Your task to perform on an android device: turn on the 12-hour format for clock Image 0: 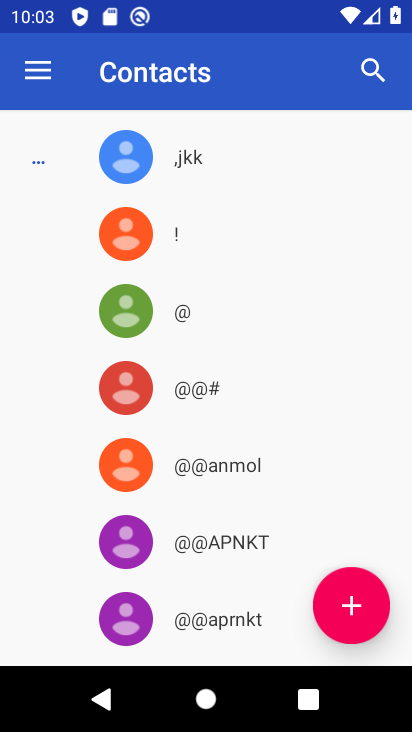
Step 0: press home button
Your task to perform on an android device: turn on the 12-hour format for clock Image 1: 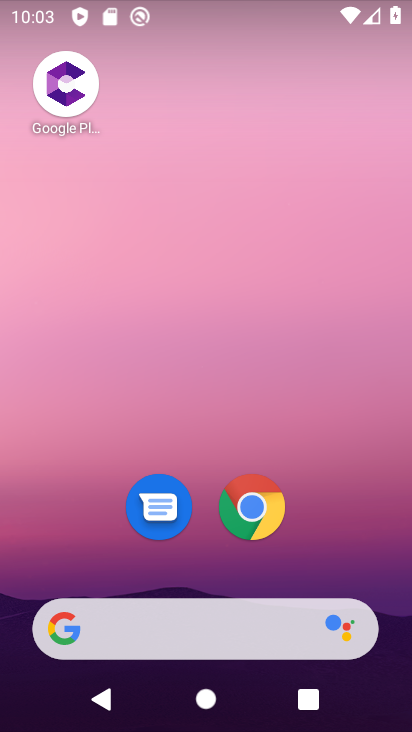
Step 1: drag from (337, 565) to (346, 14)
Your task to perform on an android device: turn on the 12-hour format for clock Image 2: 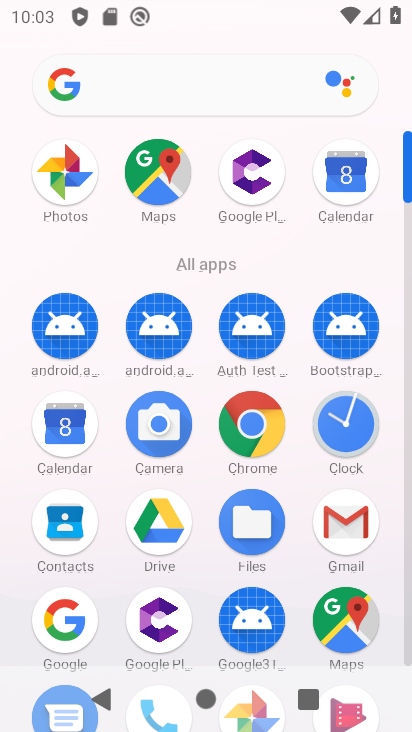
Step 2: click (346, 411)
Your task to perform on an android device: turn on the 12-hour format for clock Image 3: 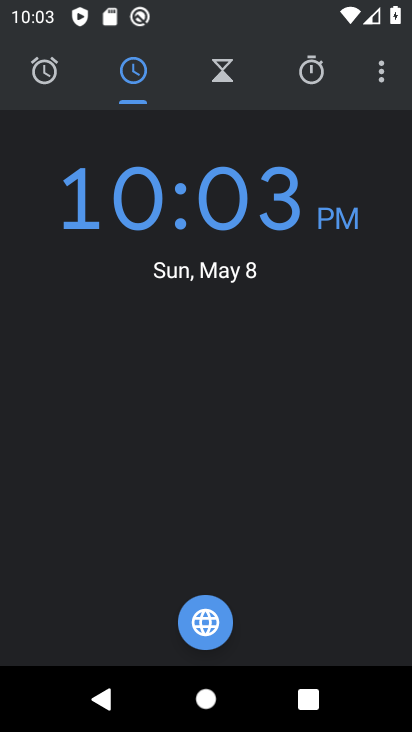
Step 3: click (371, 77)
Your task to perform on an android device: turn on the 12-hour format for clock Image 4: 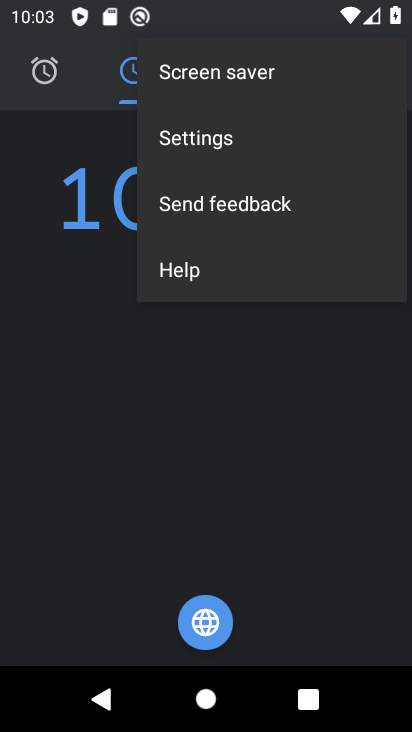
Step 4: click (299, 137)
Your task to perform on an android device: turn on the 12-hour format for clock Image 5: 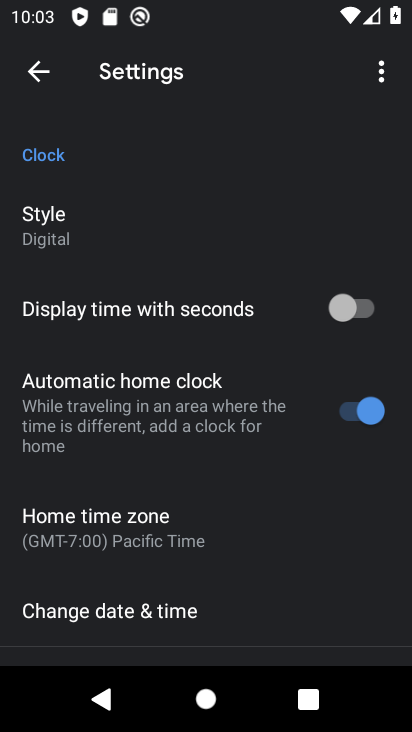
Step 5: drag from (176, 554) to (259, 276)
Your task to perform on an android device: turn on the 12-hour format for clock Image 6: 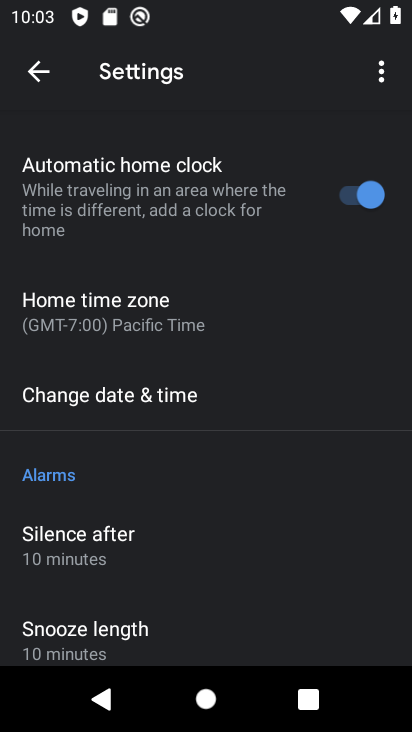
Step 6: click (165, 403)
Your task to perform on an android device: turn on the 12-hour format for clock Image 7: 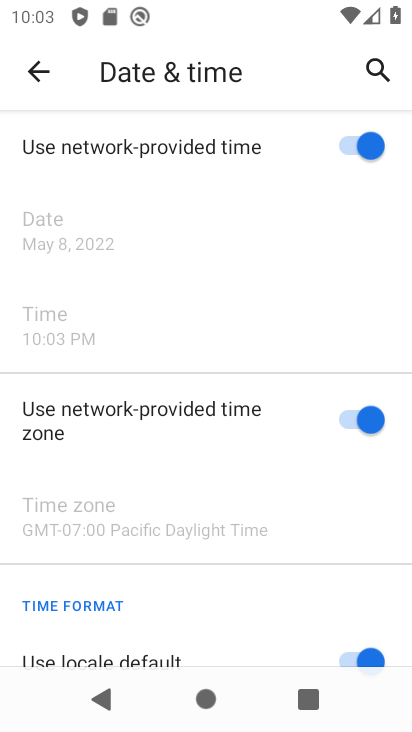
Step 7: task complete